Your task to perform on an android device: Search for "razer blade" on amazon.com, select the first entry, and add it to the cart. Image 0: 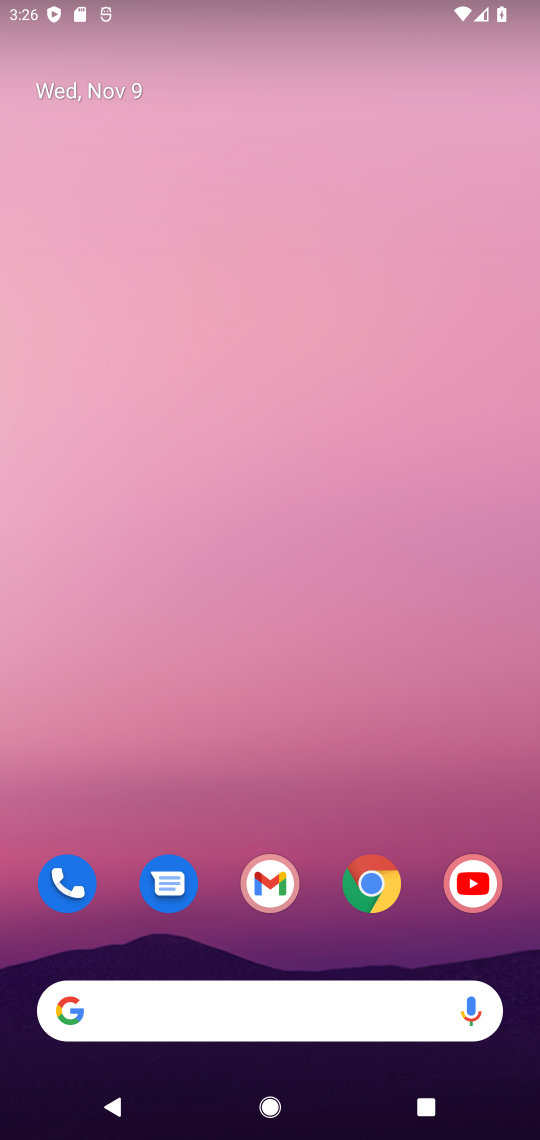
Step 0: click (361, 890)
Your task to perform on an android device: Search for "razer blade" on amazon.com, select the first entry, and add it to the cart. Image 1: 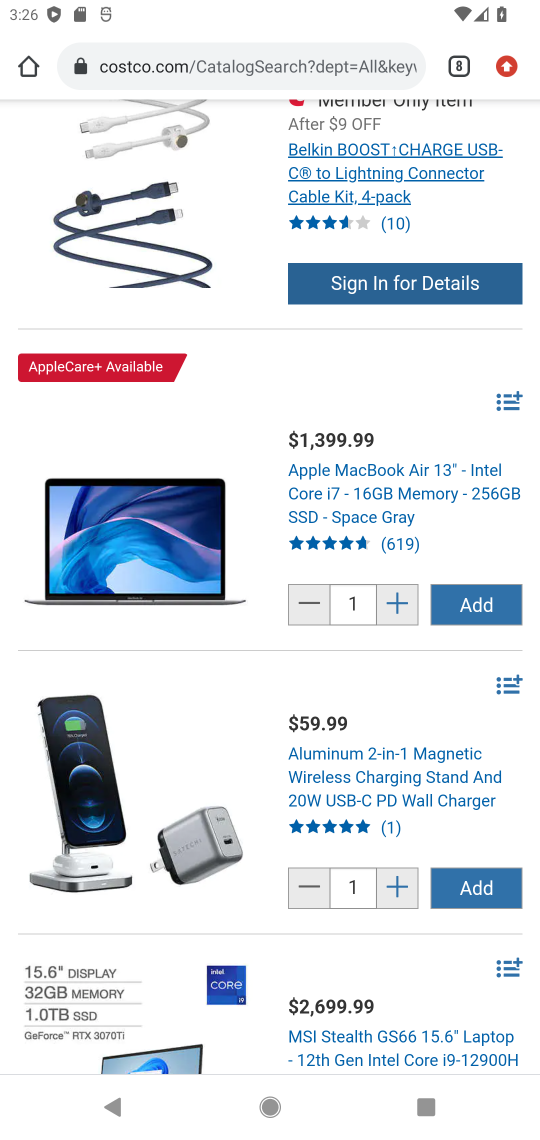
Step 1: click (456, 67)
Your task to perform on an android device: Search for "razer blade" on amazon.com, select the first entry, and add it to the cart. Image 2: 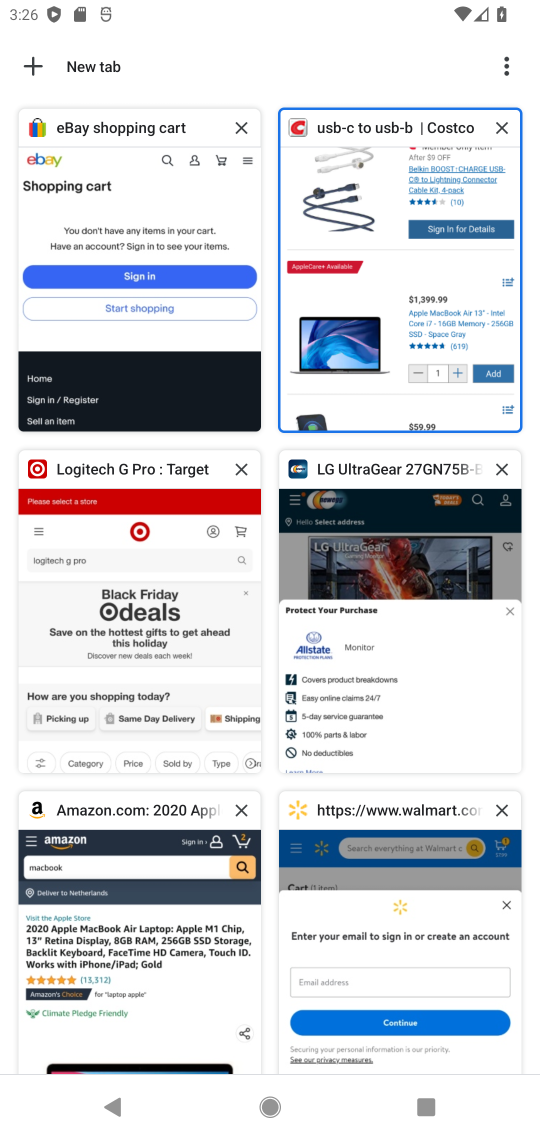
Step 2: click (109, 941)
Your task to perform on an android device: Search for "razer blade" on amazon.com, select the first entry, and add it to the cart. Image 3: 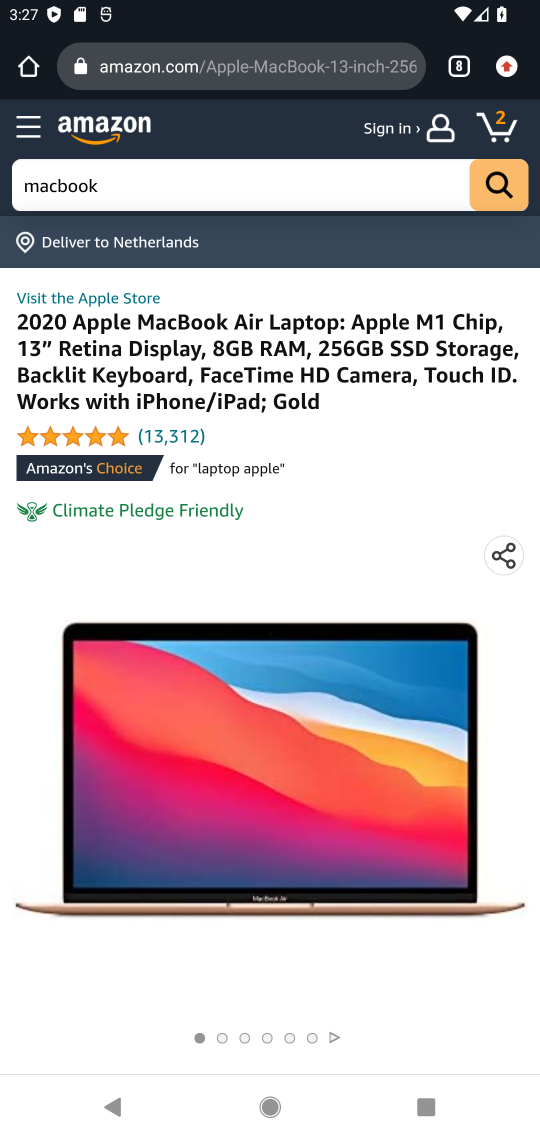
Step 3: click (134, 187)
Your task to perform on an android device: Search for "razer blade" on amazon.com, select the first entry, and add it to the cart. Image 4: 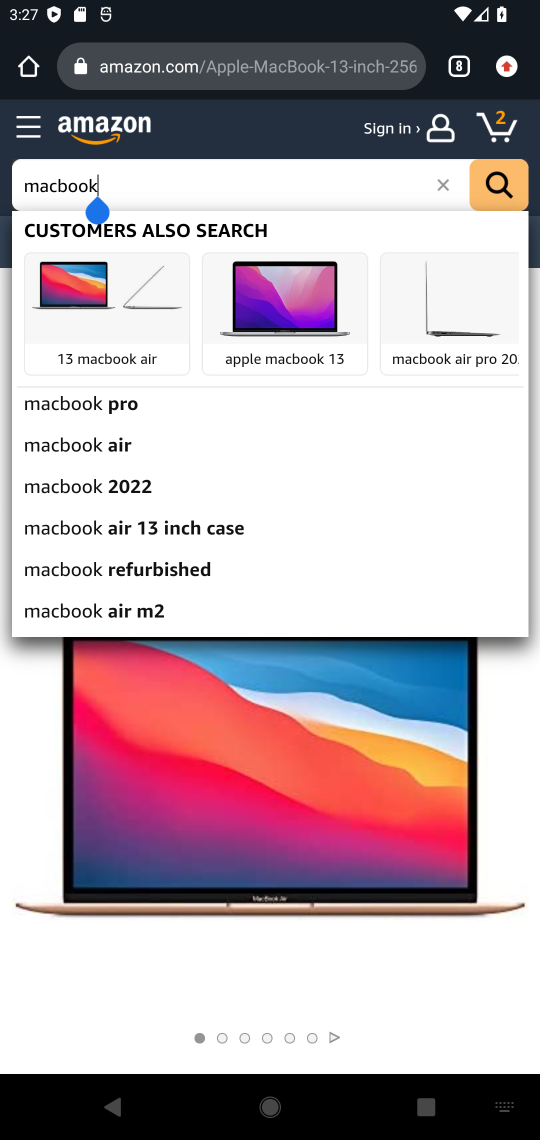
Step 4: click (449, 186)
Your task to perform on an android device: Search for "razer blade" on amazon.com, select the first entry, and add it to the cart. Image 5: 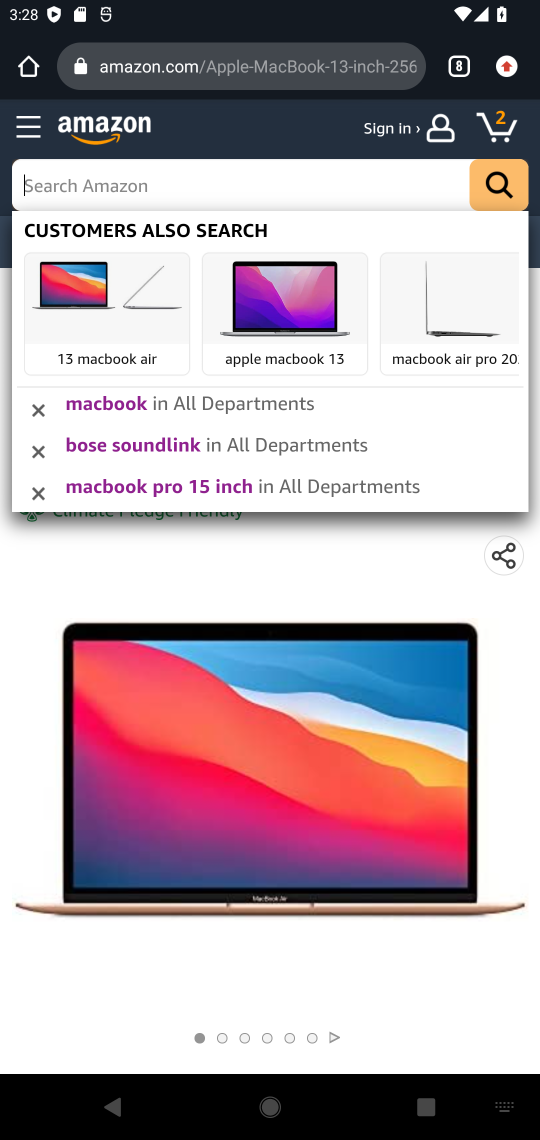
Step 5: type "razer blade"
Your task to perform on an android device: Search for "razer blade" on amazon.com, select the first entry, and add it to the cart. Image 6: 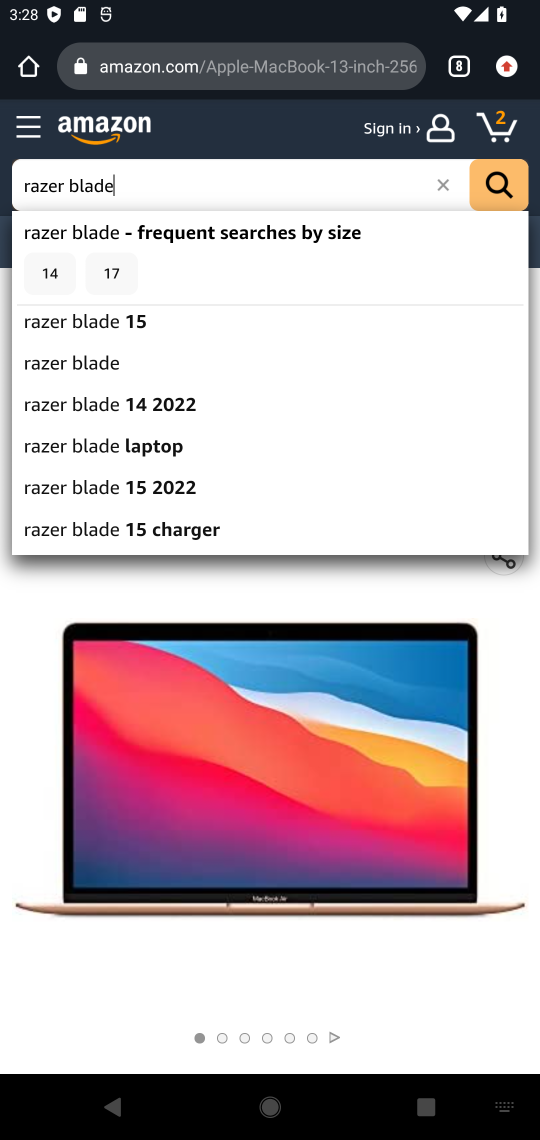
Step 6: click (70, 224)
Your task to perform on an android device: Search for "razer blade" on amazon.com, select the first entry, and add it to the cart. Image 7: 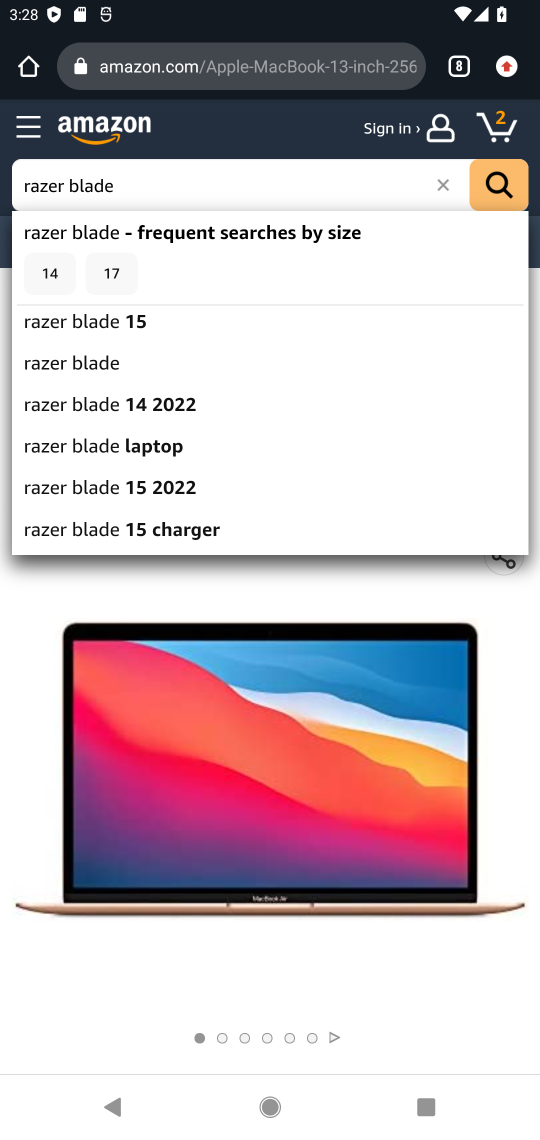
Step 7: click (65, 233)
Your task to perform on an android device: Search for "razer blade" on amazon.com, select the first entry, and add it to the cart. Image 8: 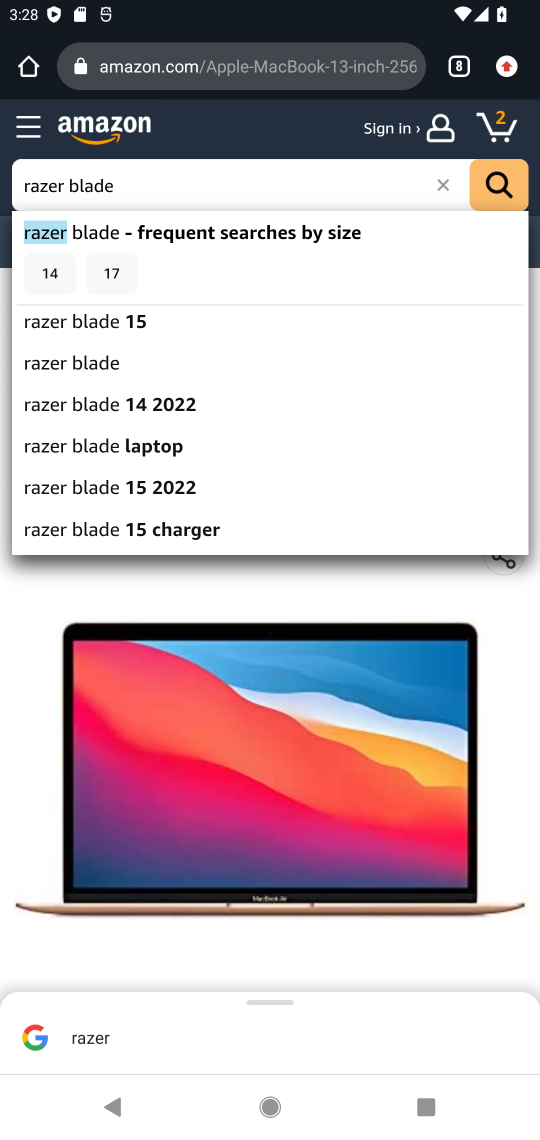
Step 8: click (60, 319)
Your task to perform on an android device: Search for "razer blade" on amazon.com, select the first entry, and add it to the cart. Image 9: 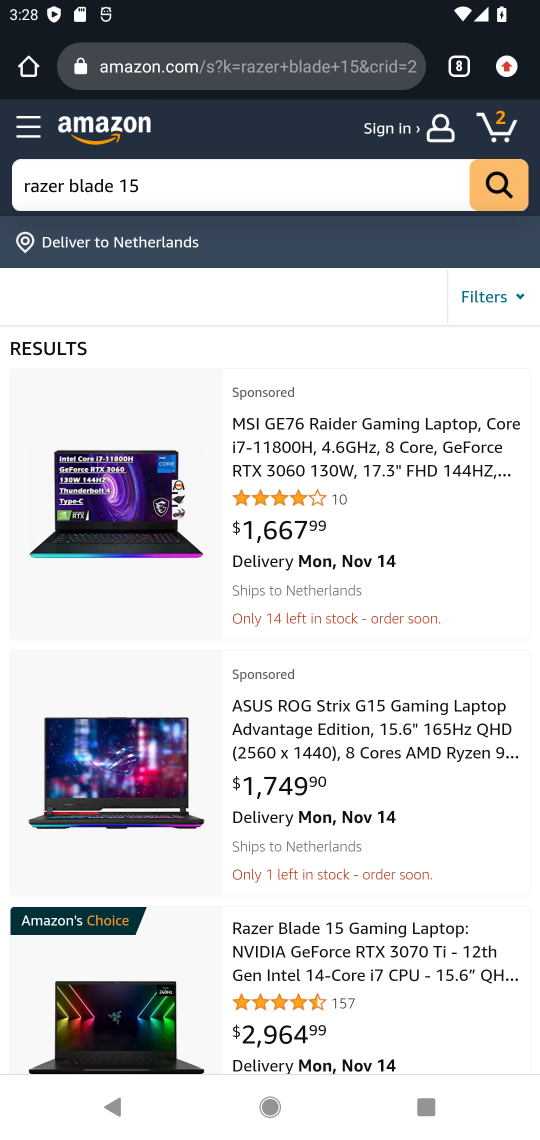
Step 9: click (342, 945)
Your task to perform on an android device: Search for "razer blade" on amazon.com, select the first entry, and add it to the cart. Image 10: 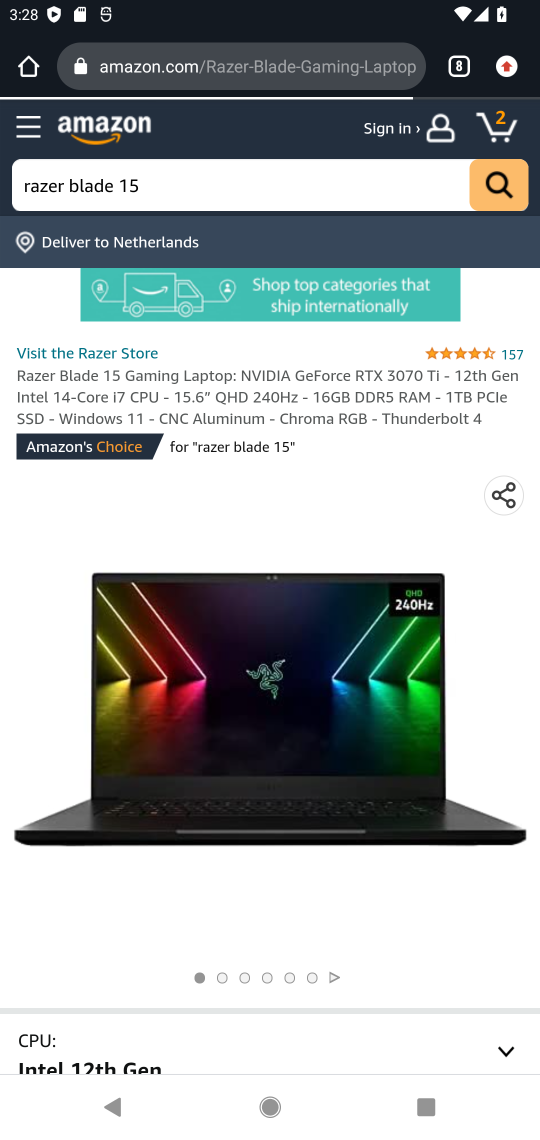
Step 10: drag from (325, 918) to (448, 190)
Your task to perform on an android device: Search for "razer blade" on amazon.com, select the first entry, and add it to the cart. Image 11: 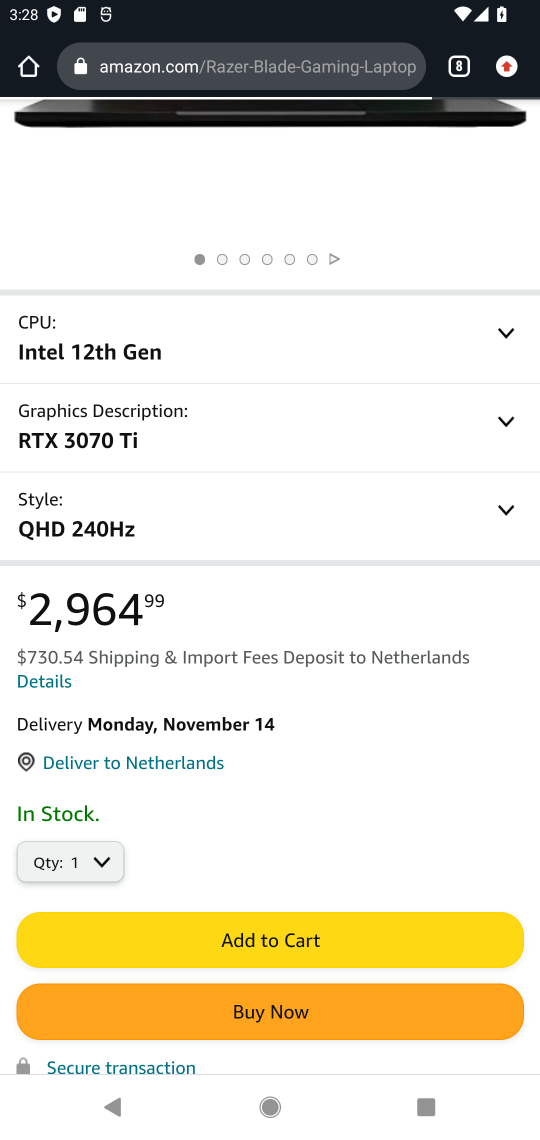
Step 11: click (310, 932)
Your task to perform on an android device: Search for "razer blade" on amazon.com, select the first entry, and add it to the cart. Image 12: 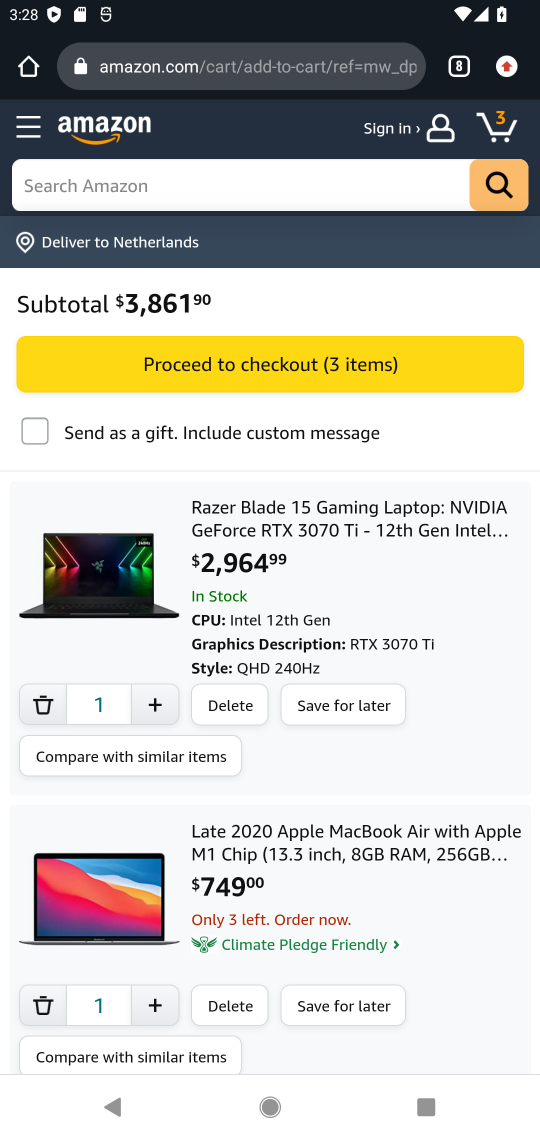
Step 12: task complete